Your task to perform on an android device: turn off notifications settings in the gmail app Image 0: 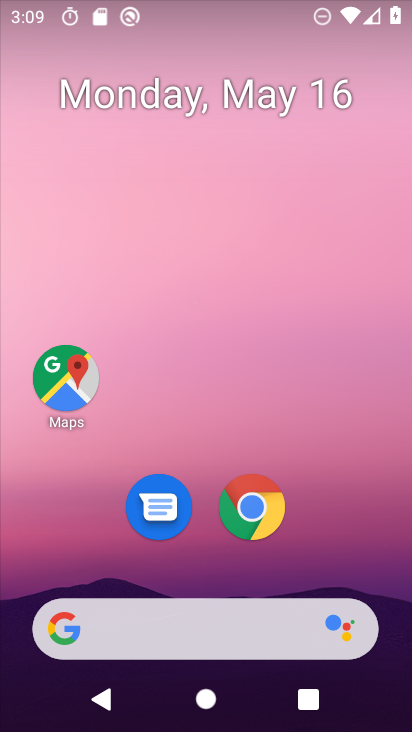
Step 0: drag from (340, 409) to (299, 42)
Your task to perform on an android device: turn off notifications settings in the gmail app Image 1: 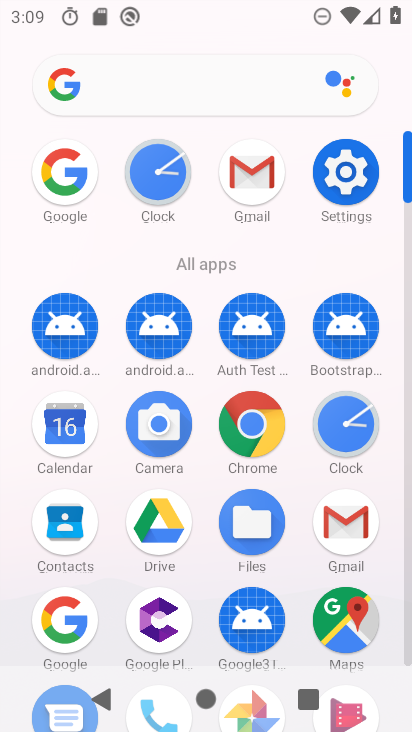
Step 1: click (268, 185)
Your task to perform on an android device: turn off notifications settings in the gmail app Image 2: 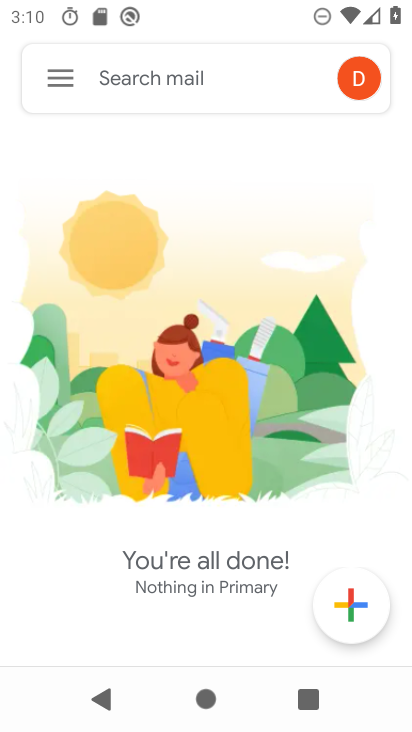
Step 2: click (56, 73)
Your task to perform on an android device: turn off notifications settings in the gmail app Image 3: 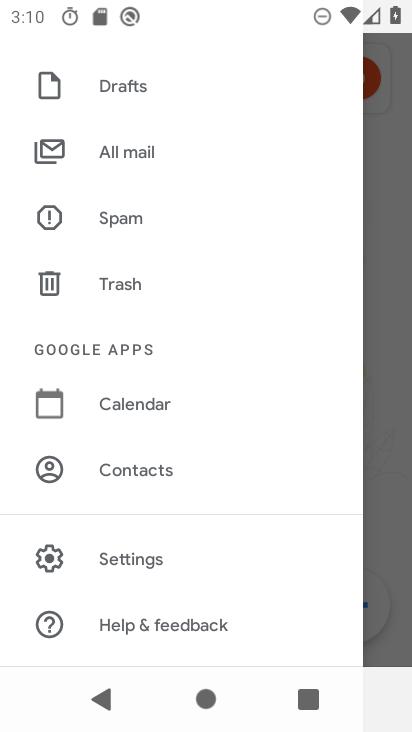
Step 3: click (120, 556)
Your task to perform on an android device: turn off notifications settings in the gmail app Image 4: 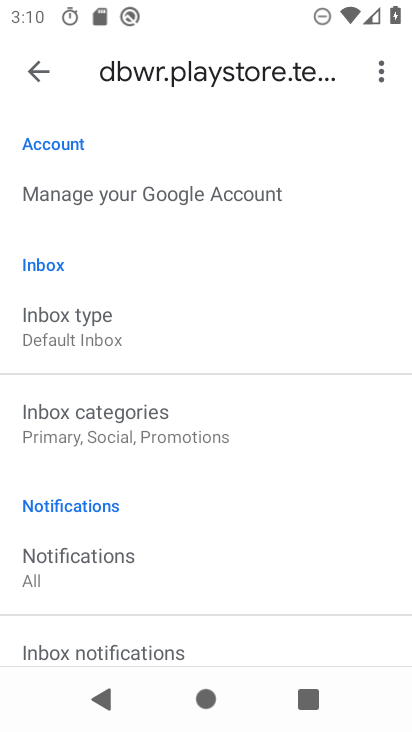
Step 4: click (126, 570)
Your task to perform on an android device: turn off notifications settings in the gmail app Image 5: 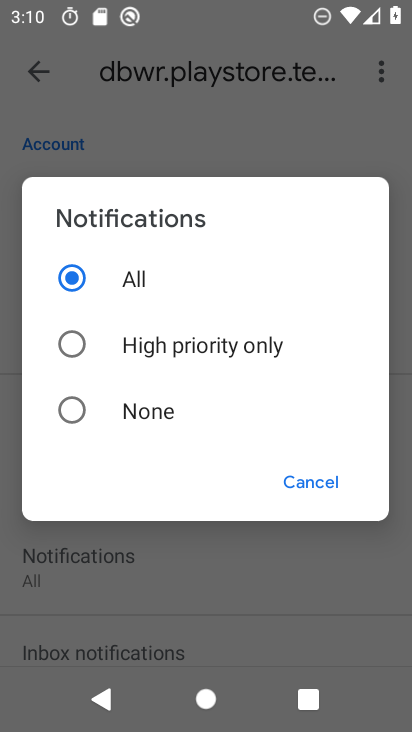
Step 5: click (91, 412)
Your task to perform on an android device: turn off notifications settings in the gmail app Image 6: 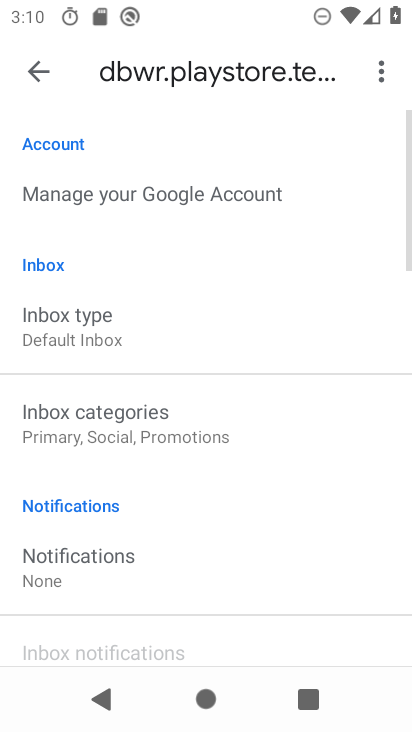
Step 6: task complete